Your task to perform on an android device: Open wifi settings Image 0: 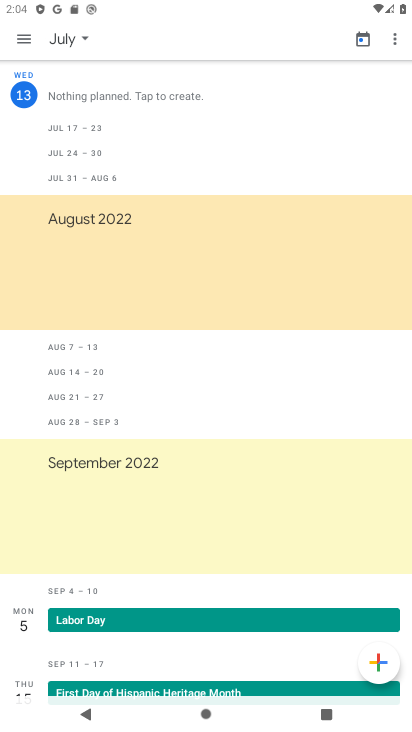
Step 0: drag from (273, 7) to (264, 672)
Your task to perform on an android device: Open wifi settings Image 1: 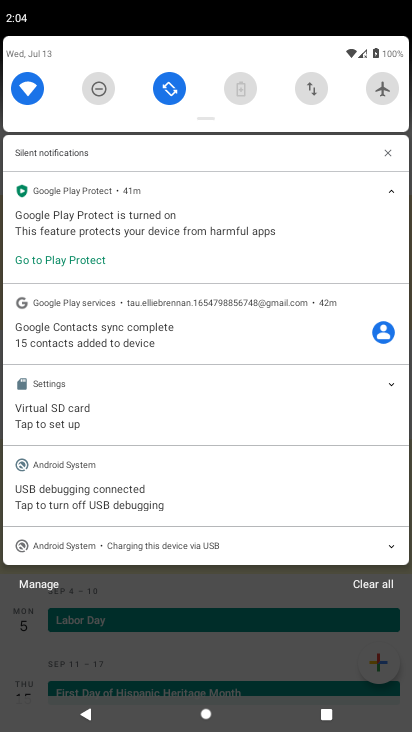
Step 1: click (34, 94)
Your task to perform on an android device: Open wifi settings Image 2: 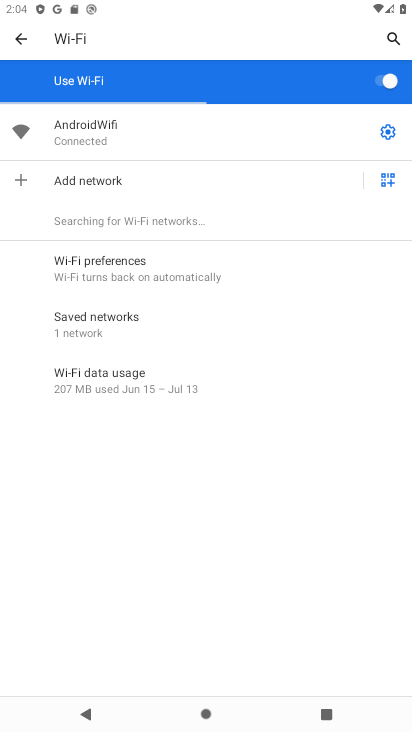
Step 2: task complete